Your task to perform on an android device: toggle notifications settings in the gmail app Image 0: 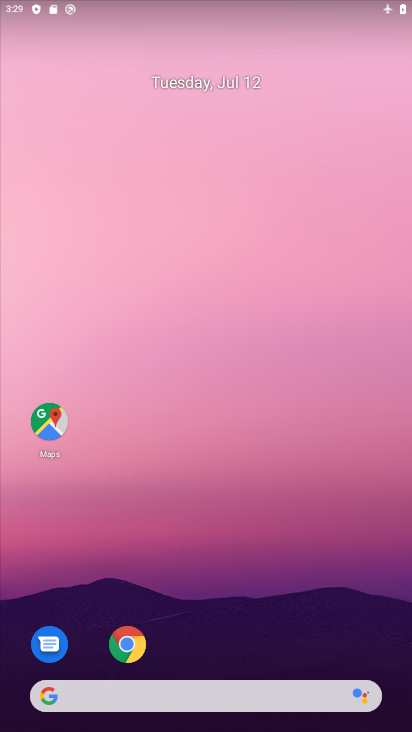
Step 0: drag from (218, 621) to (185, 96)
Your task to perform on an android device: toggle notifications settings in the gmail app Image 1: 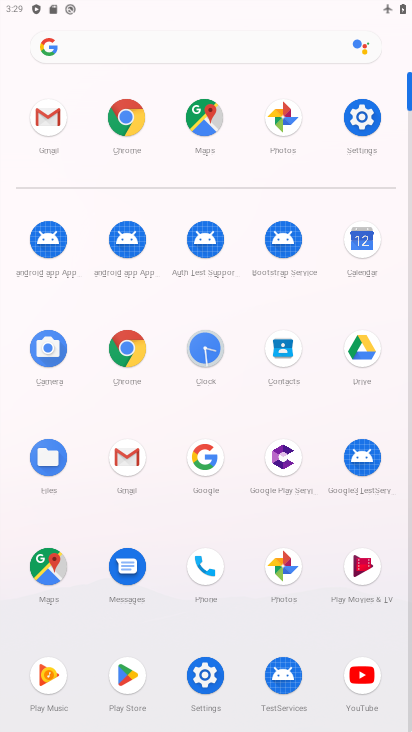
Step 1: click (49, 119)
Your task to perform on an android device: toggle notifications settings in the gmail app Image 2: 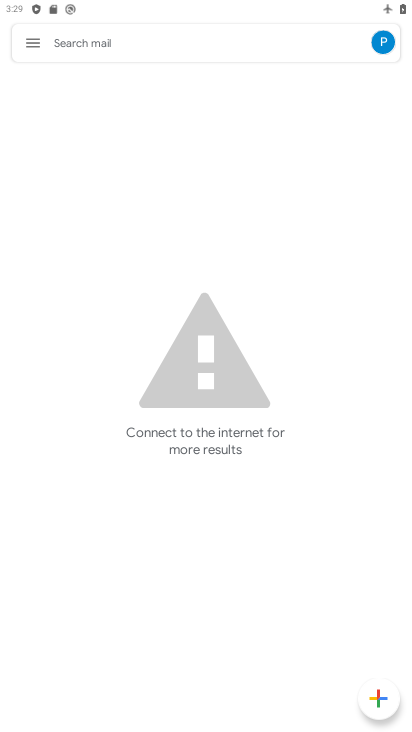
Step 2: click (39, 45)
Your task to perform on an android device: toggle notifications settings in the gmail app Image 3: 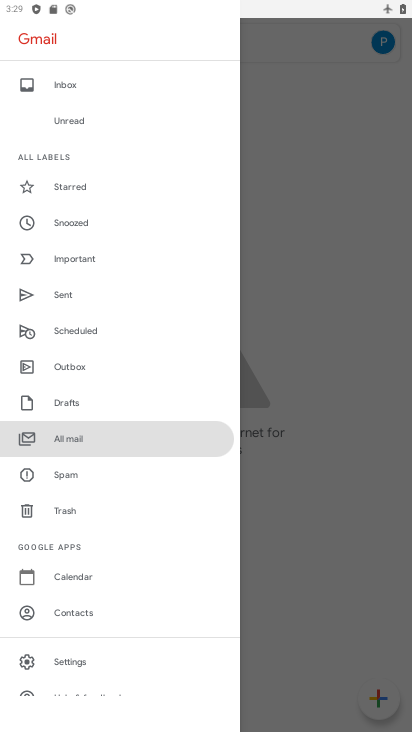
Step 3: click (76, 663)
Your task to perform on an android device: toggle notifications settings in the gmail app Image 4: 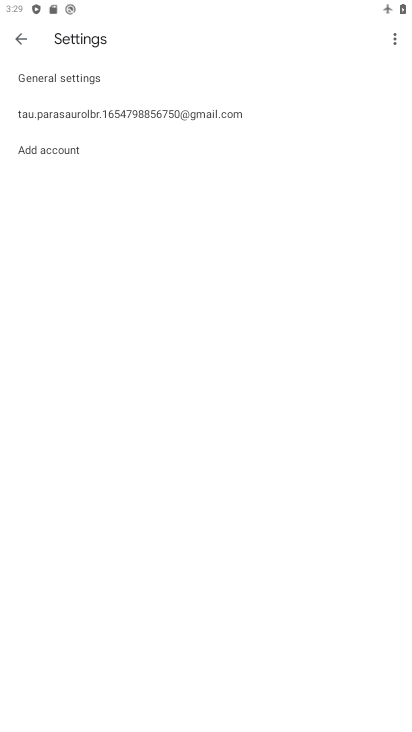
Step 4: click (119, 118)
Your task to perform on an android device: toggle notifications settings in the gmail app Image 5: 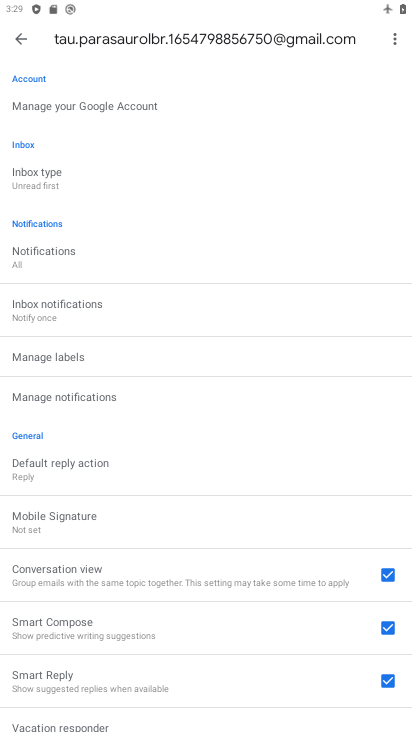
Step 5: click (80, 398)
Your task to perform on an android device: toggle notifications settings in the gmail app Image 6: 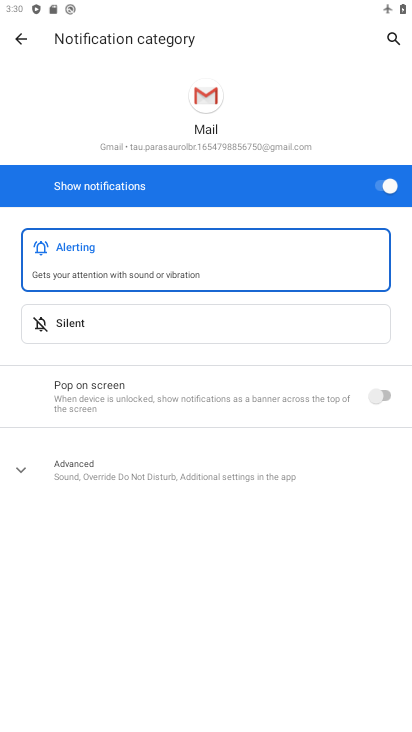
Step 6: click (388, 184)
Your task to perform on an android device: toggle notifications settings in the gmail app Image 7: 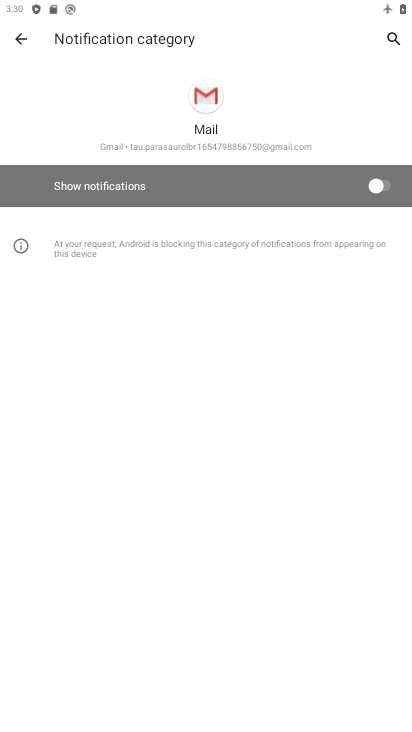
Step 7: task complete